Your task to perform on an android device: remove spam from my inbox in the gmail app Image 0: 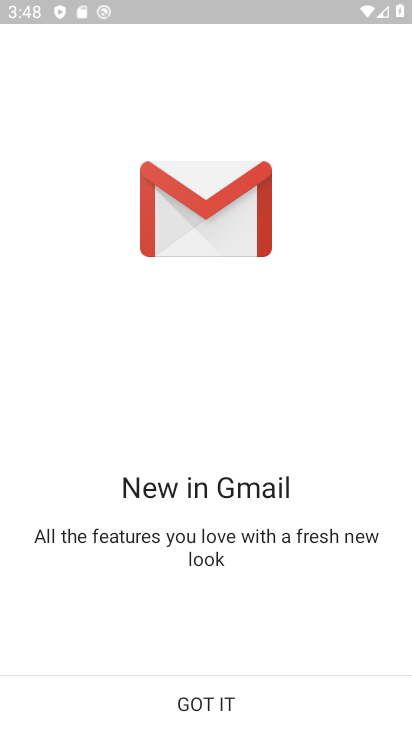
Step 0: click (206, 698)
Your task to perform on an android device: remove spam from my inbox in the gmail app Image 1: 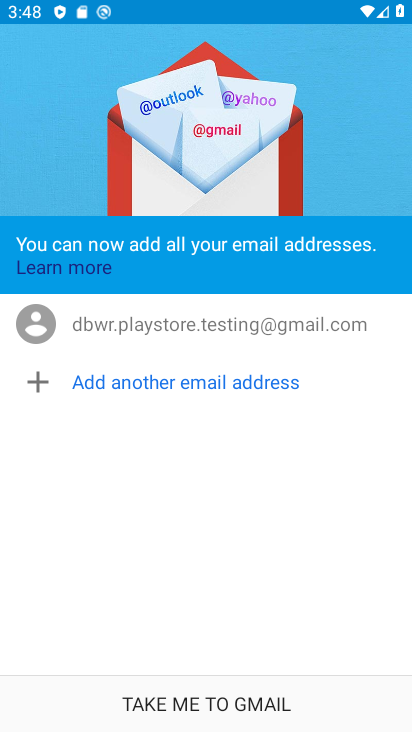
Step 1: click (209, 707)
Your task to perform on an android device: remove spam from my inbox in the gmail app Image 2: 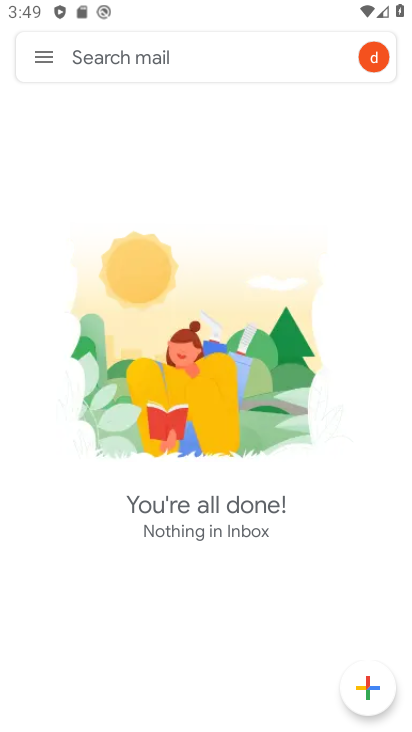
Step 2: task complete